Your task to perform on an android device: Empty the shopping cart on target.com. Search for logitech g502 on target.com, select the first entry, and add it to the cart. Image 0: 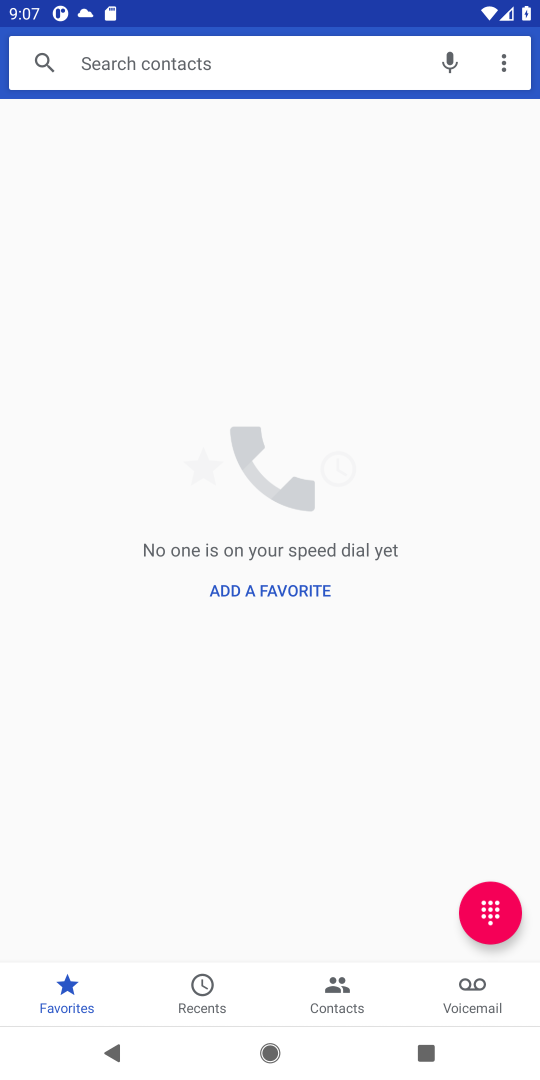
Step 0: press home button
Your task to perform on an android device: Empty the shopping cart on target.com. Search for logitech g502 on target.com, select the first entry, and add it to the cart. Image 1: 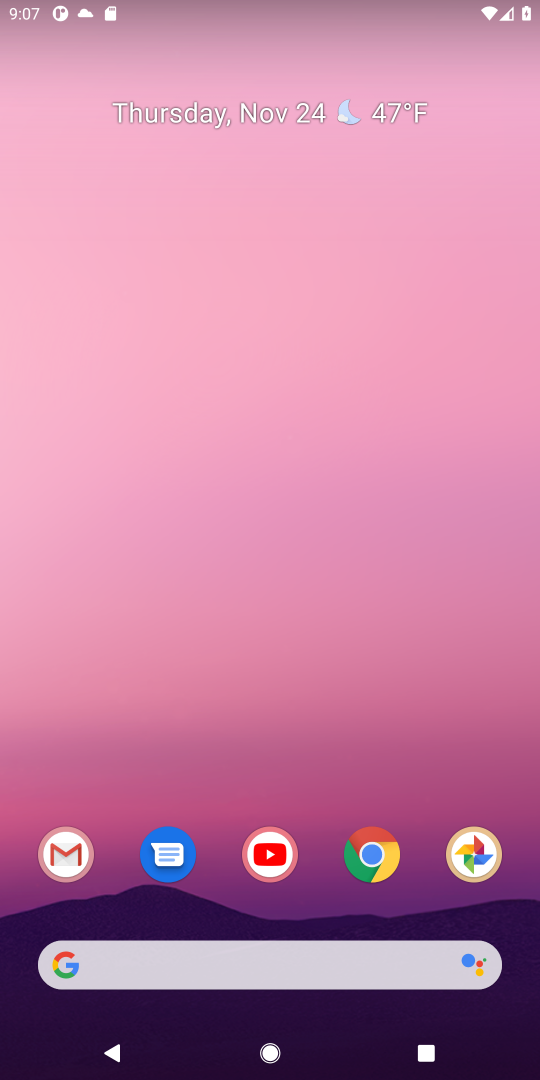
Step 1: click (362, 856)
Your task to perform on an android device: Empty the shopping cart on target.com. Search for logitech g502 on target.com, select the first entry, and add it to the cart. Image 2: 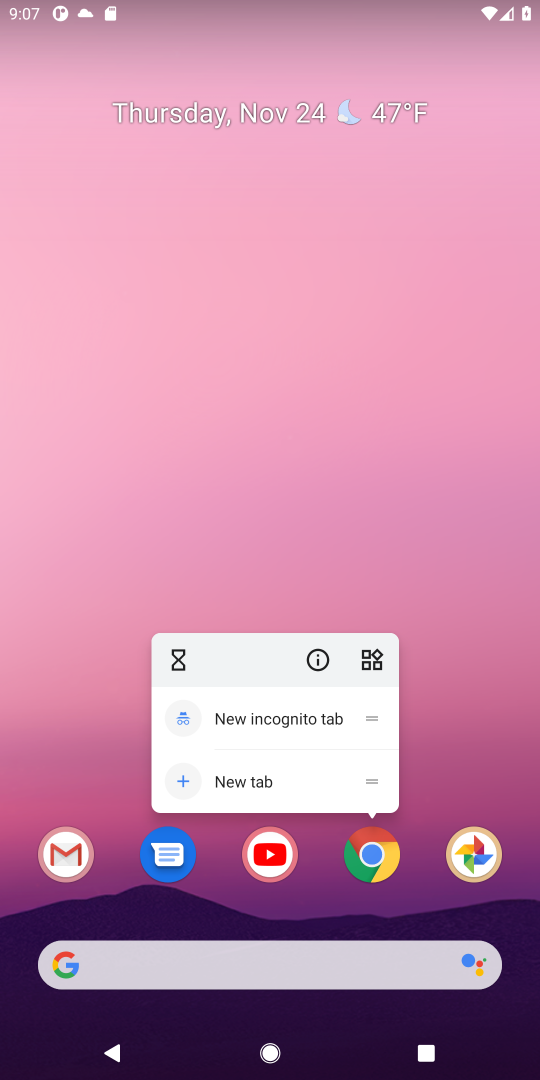
Step 2: click (378, 875)
Your task to perform on an android device: Empty the shopping cart on target.com. Search for logitech g502 on target.com, select the first entry, and add it to the cart. Image 3: 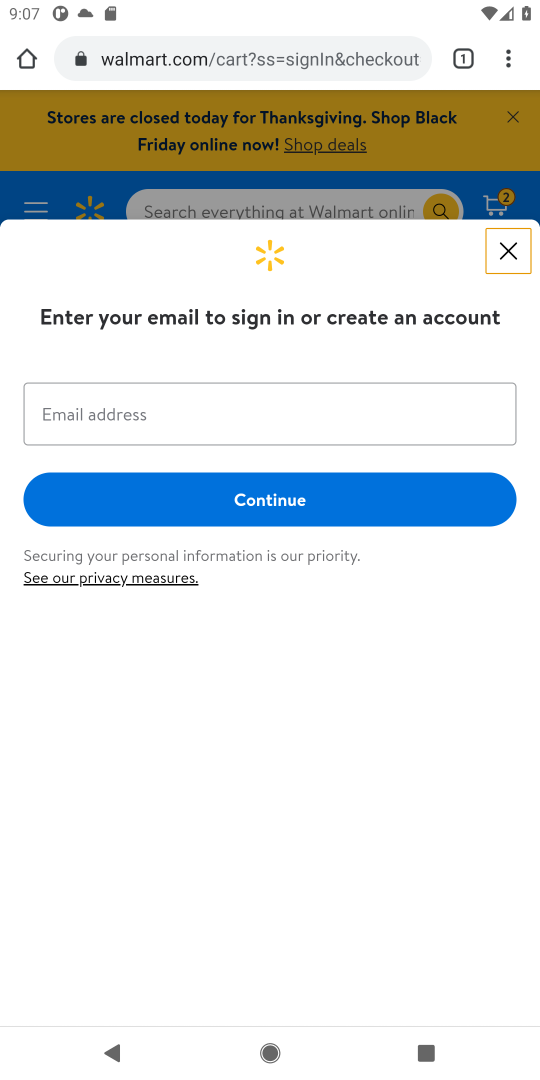
Step 3: click (146, 63)
Your task to perform on an android device: Empty the shopping cart on target.com. Search for logitech g502 on target.com, select the first entry, and add it to the cart. Image 4: 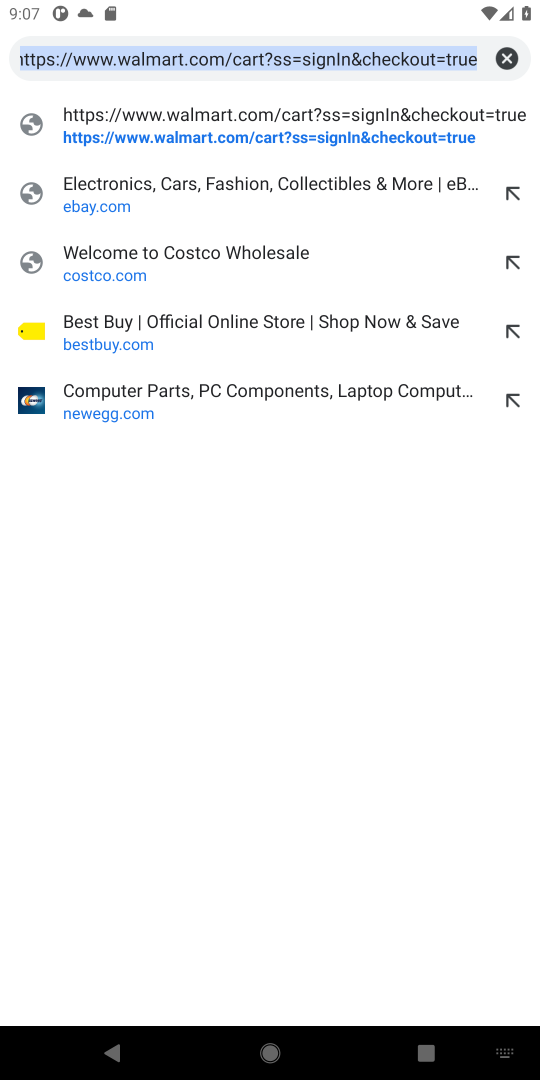
Step 4: type "target.com"
Your task to perform on an android device: Empty the shopping cart on target.com. Search for logitech g502 on target.com, select the first entry, and add it to the cart. Image 5: 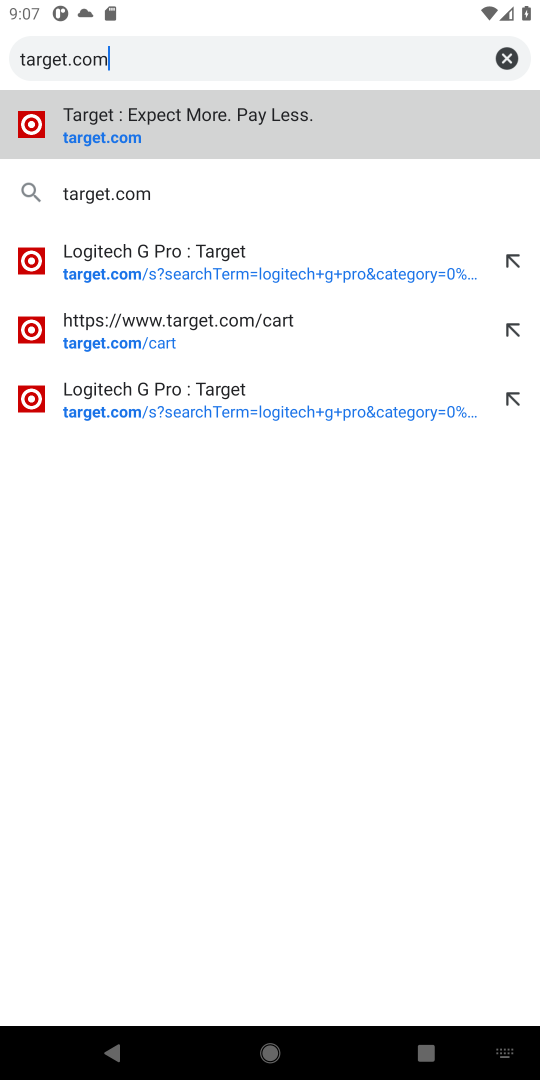
Step 5: click (78, 146)
Your task to perform on an android device: Empty the shopping cart on target.com. Search for logitech g502 on target.com, select the first entry, and add it to the cart. Image 6: 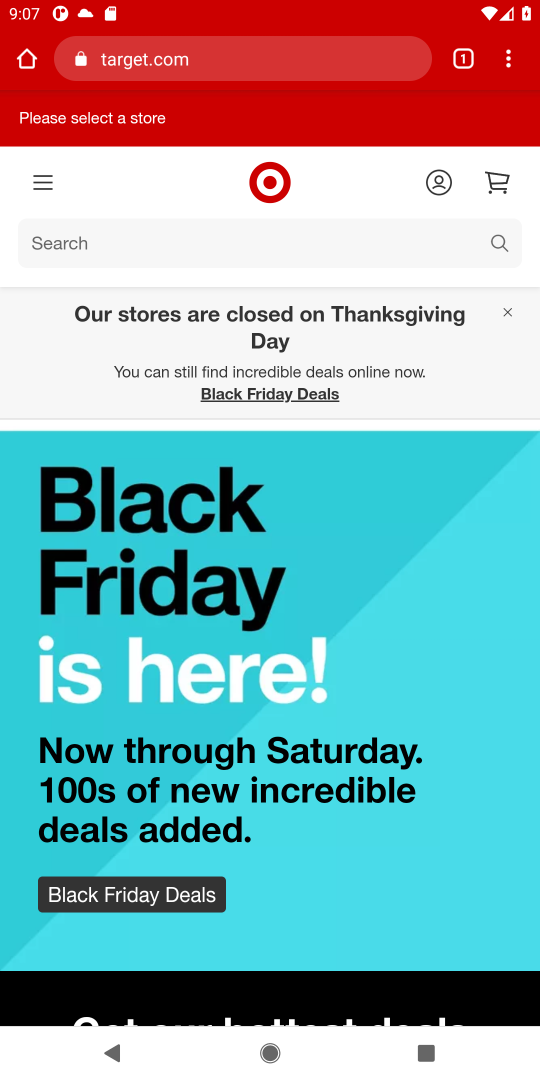
Step 6: click (502, 188)
Your task to perform on an android device: Empty the shopping cart on target.com. Search for logitech g502 on target.com, select the first entry, and add it to the cart. Image 7: 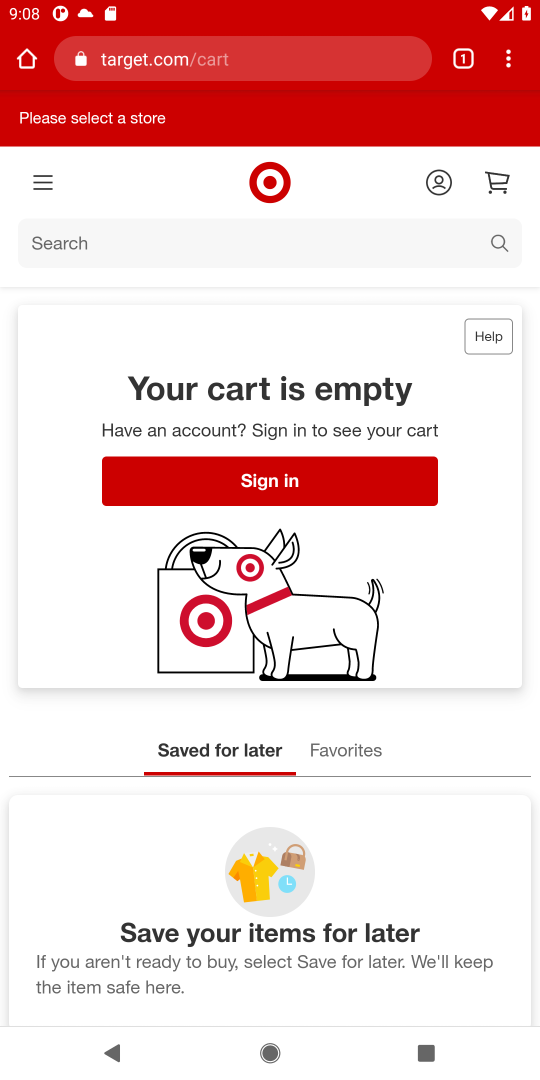
Step 7: click (500, 243)
Your task to perform on an android device: Empty the shopping cart on target.com. Search for logitech g502 on target.com, select the first entry, and add it to the cart. Image 8: 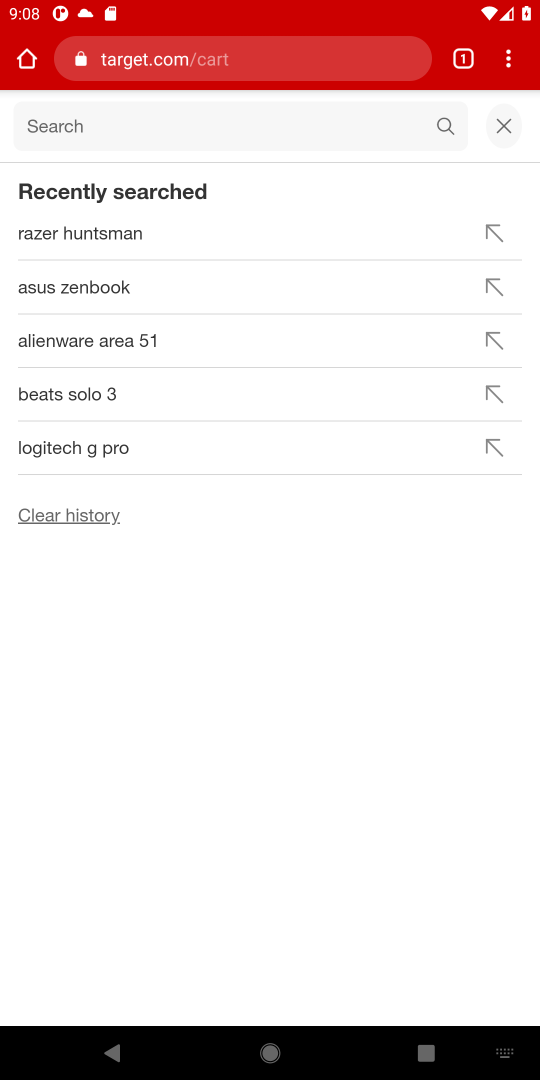
Step 8: type " logitech g502 "
Your task to perform on an android device: Empty the shopping cart on target.com. Search for logitech g502 on target.com, select the first entry, and add it to the cart. Image 9: 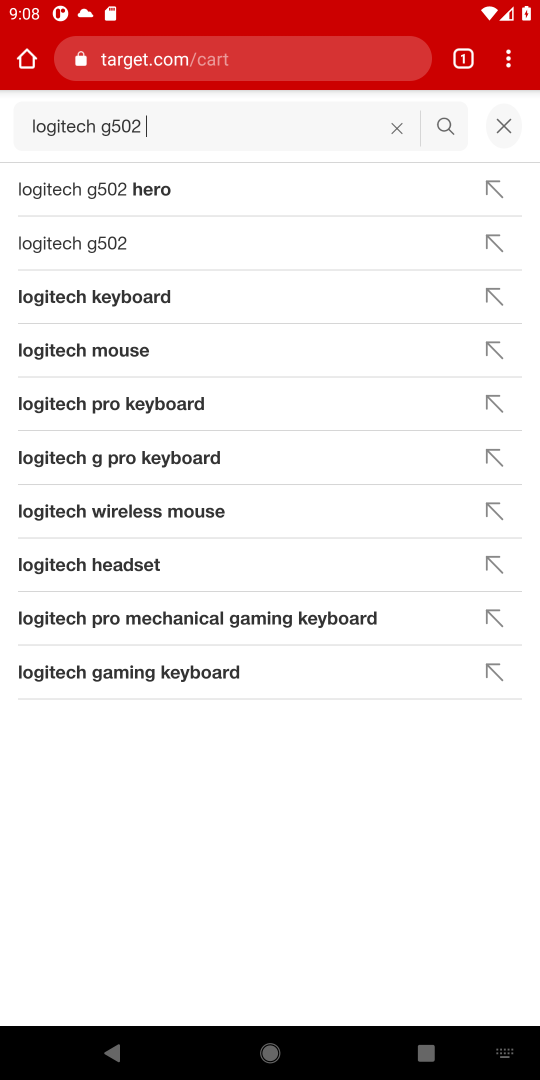
Step 9: click (76, 253)
Your task to perform on an android device: Empty the shopping cart on target.com. Search for logitech g502 on target.com, select the first entry, and add it to the cart. Image 10: 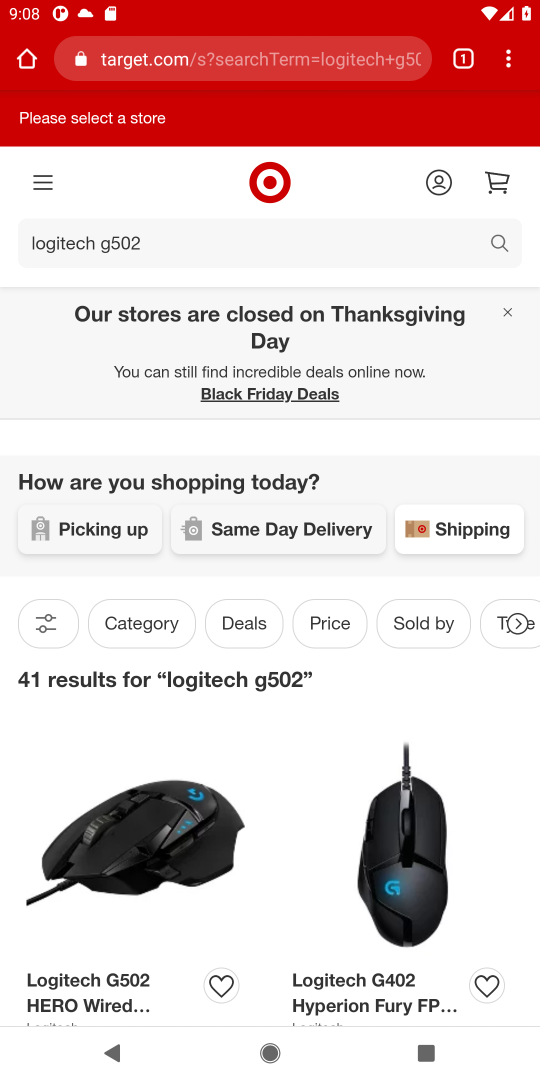
Step 10: drag from (235, 691) to (233, 459)
Your task to perform on an android device: Empty the shopping cart on target.com. Search for logitech g502 on target.com, select the first entry, and add it to the cart. Image 11: 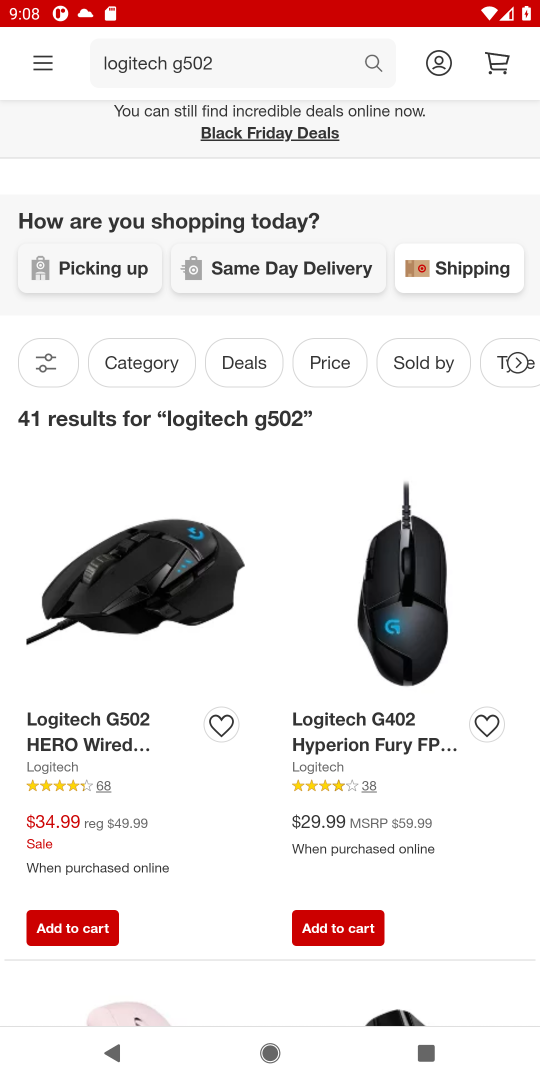
Step 11: click (68, 631)
Your task to perform on an android device: Empty the shopping cart on target.com. Search for logitech g502 on target.com, select the first entry, and add it to the cart. Image 12: 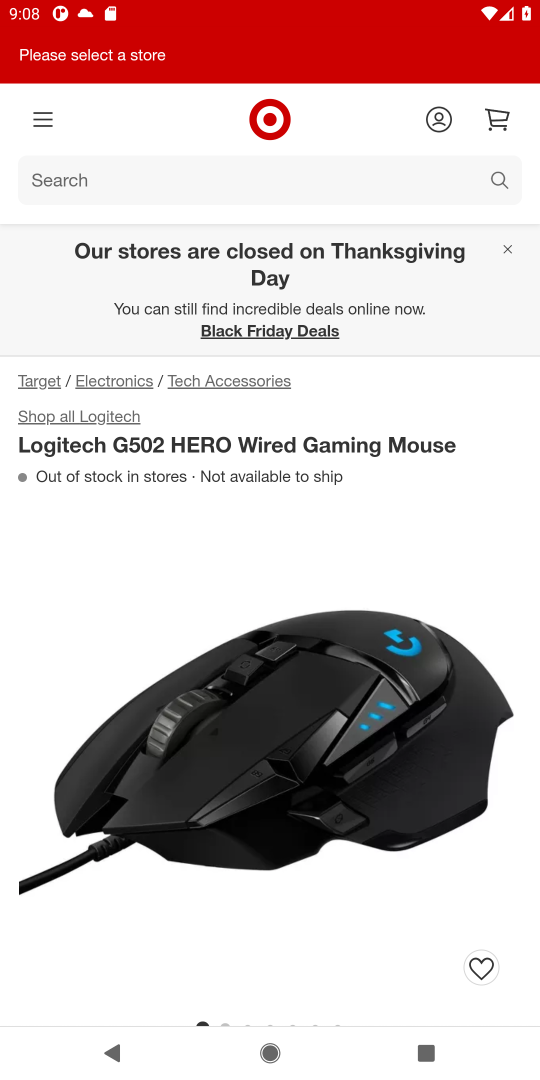
Step 12: drag from (187, 771) to (198, 263)
Your task to perform on an android device: Empty the shopping cart on target.com. Search for logitech g502 on target.com, select the first entry, and add it to the cart. Image 13: 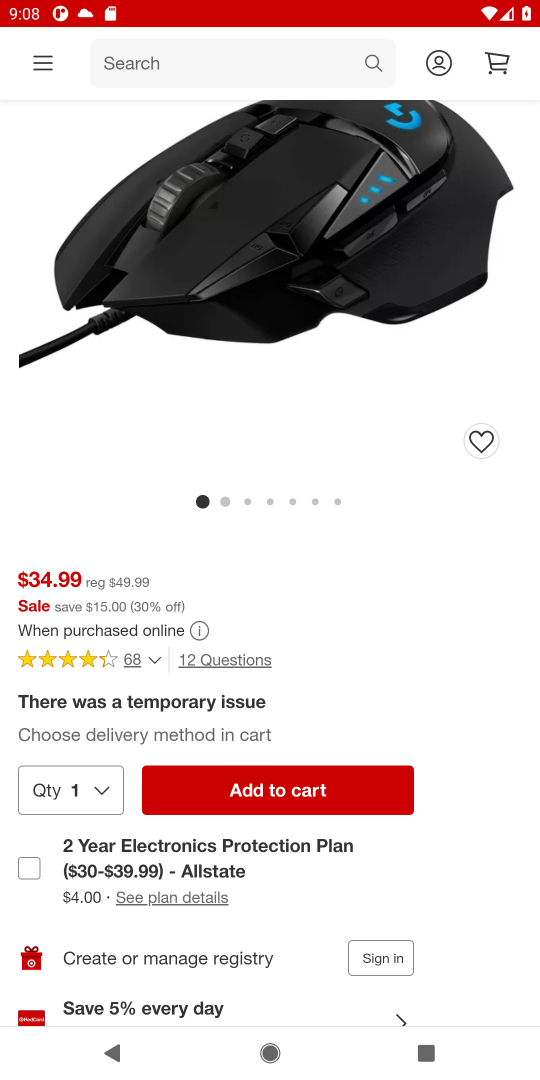
Step 13: click (218, 792)
Your task to perform on an android device: Empty the shopping cart on target.com. Search for logitech g502 on target.com, select the first entry, and add it to the cart. Image 14: 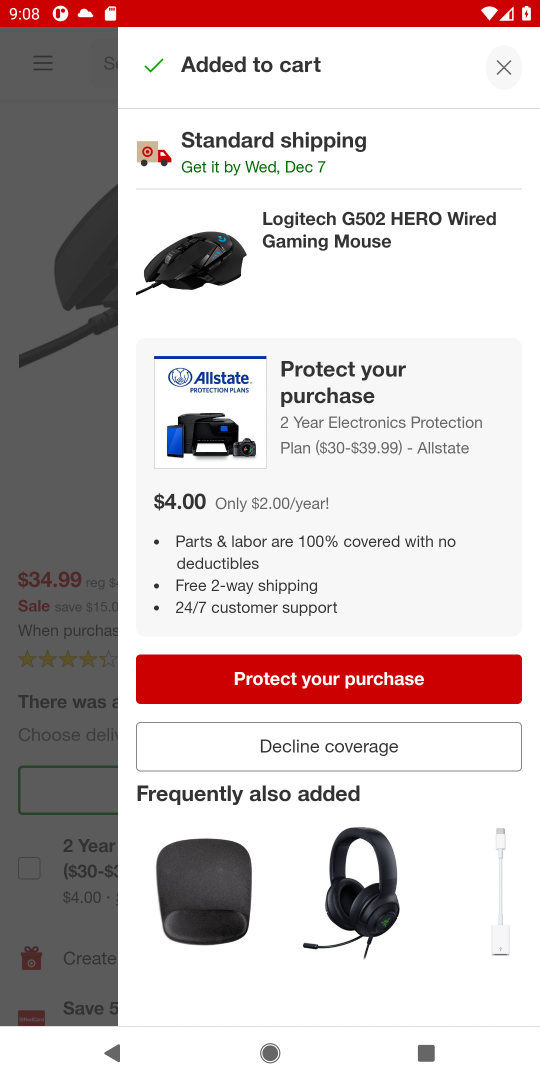
Step 14: task complete